Your task to perform on an android device: toggle wifi Image 0: 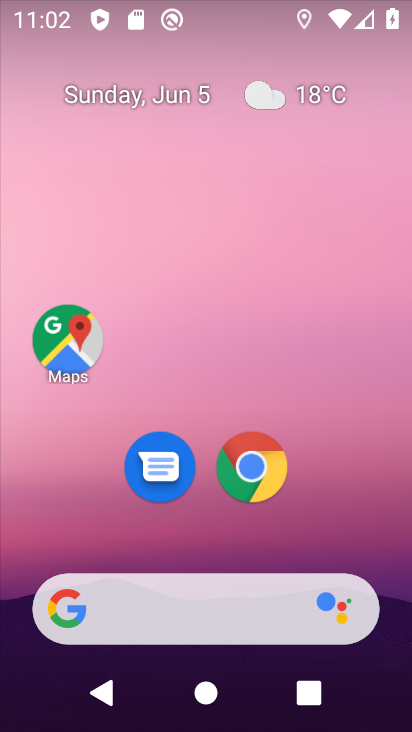
Step 0: click (240, 561)
Your task to perform on an android device: toggle wifi Image 1: 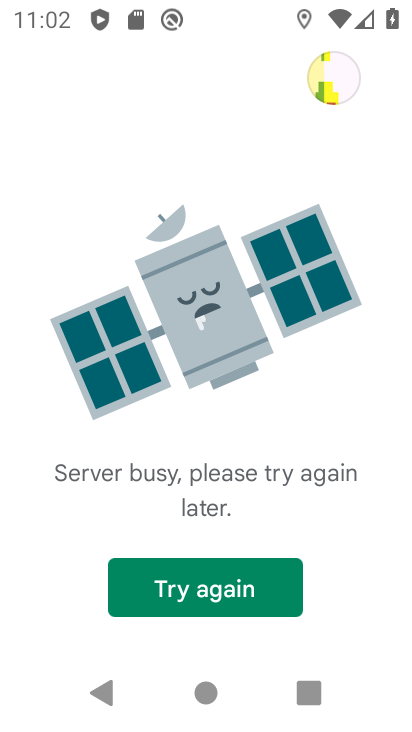
Step 1: press home button
Your task to perform on an android device: toggle wifi Image 2: 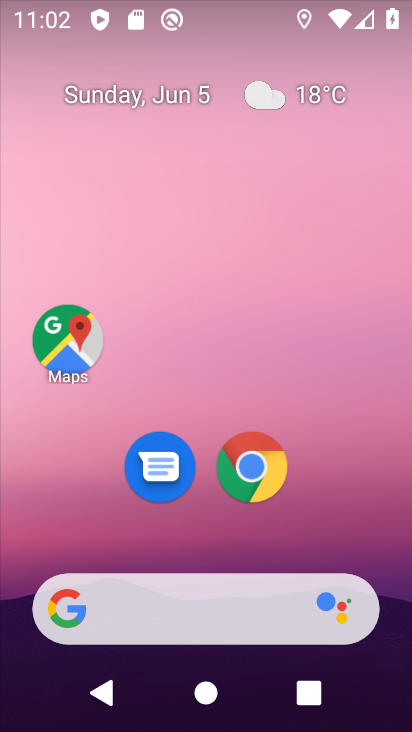
Step 2: drag from (199, 538) to (106, 88)
Your task to perform on an android device: toggle wifi Image 3: 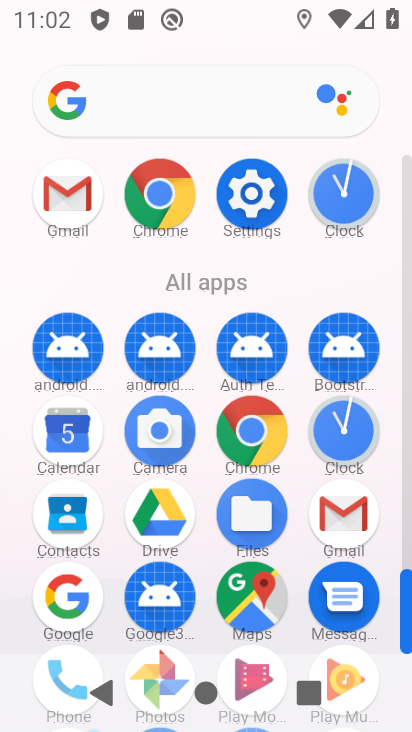
Step 3: click (235, 204)
Your task to perform on an android device: toggle wifi Image 4: 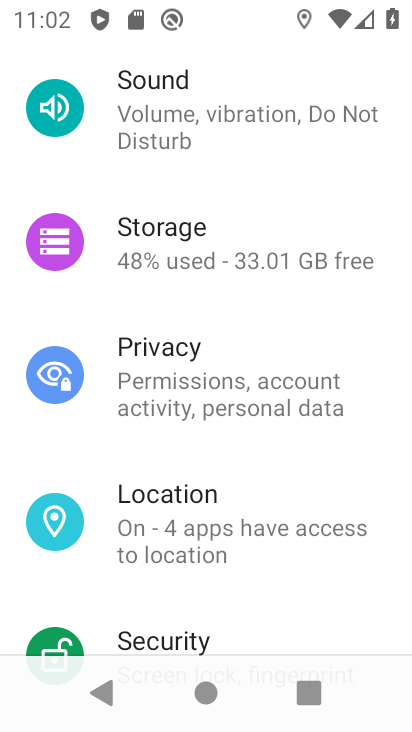
Step 4: drag from (235, 204) to (304, 709)
Your task to perform on an android device: toggle wifi Image 5: 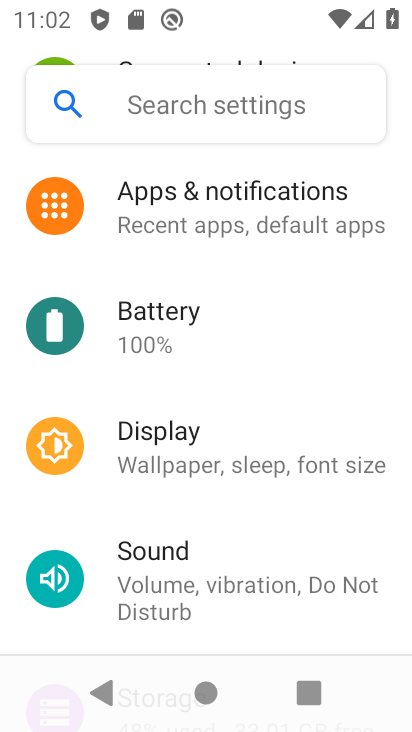
Step 5: drag from (209, 250) to (169, 686)
Your task to perform on an android device: toggle wifi Image 6: 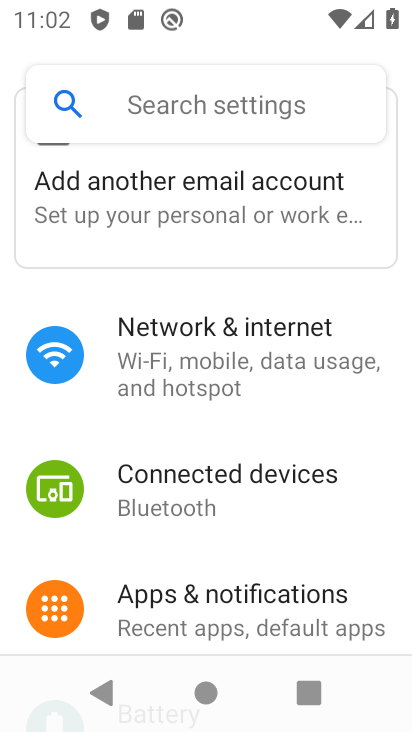
Step 6: click (267, 298)
Your task to perform on an android device: toggle wifi Image 7: 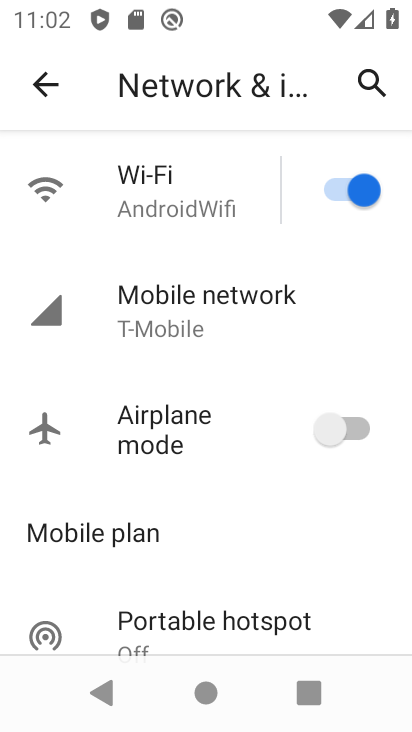
Step 7: click (182, 201)
Your task to perform on an android device: toggle wifi Image 8: 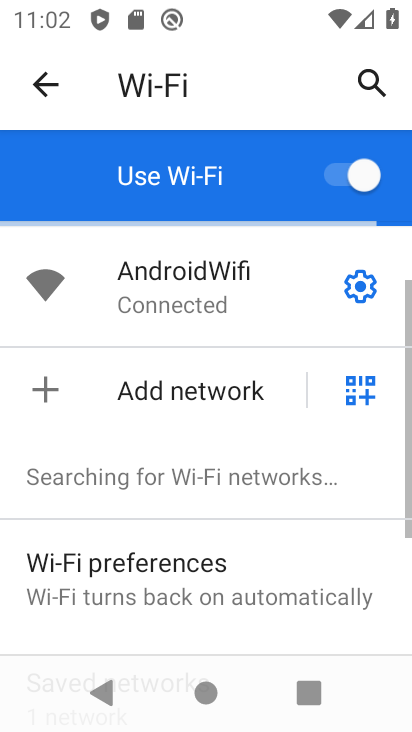
Step 8: click (309, 166)
Your task to perform on an android device: toggle wifi Image 9: 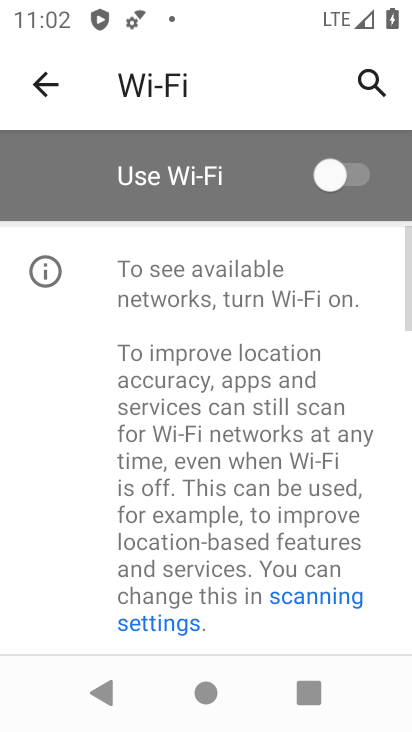
Step 9: task complete